Your task to perform on an android device: open app "Chime – Mobile Banking" (install if not already installed) and enter user name: "bullfrog@inbox.com" and password: "breaker" Image 0: 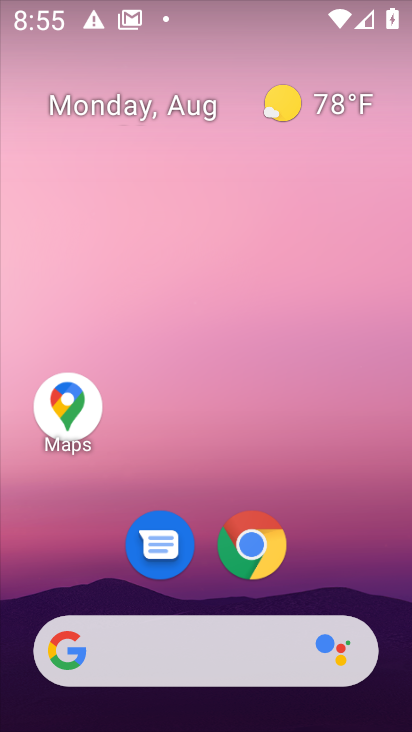
Step 0: press home button
Your task to perform on an android device: open app "Chime – Mobile Banking" (install if not already installed) and enter user name: "bullfrog@inbox.com" and password: "breaker" Image 1: 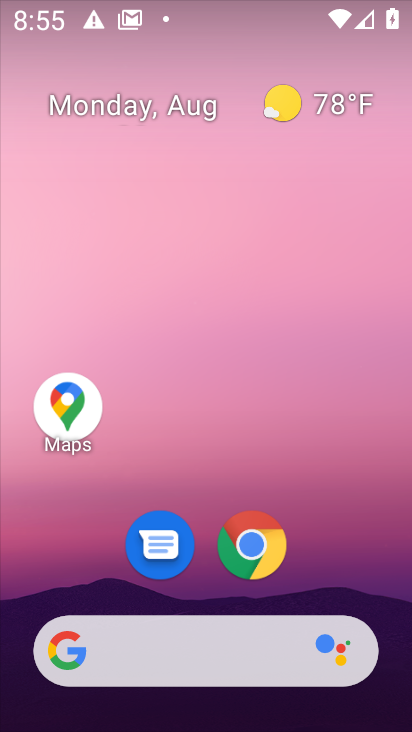
Step 1: drag from (363, 589) to (361, 150)
Your task to perform on an android device: open app "Chime – Mobile Banking" (install if not already installed) and enter user name: "bullfrog@inbox.com" and password: "breaker" Image 2: 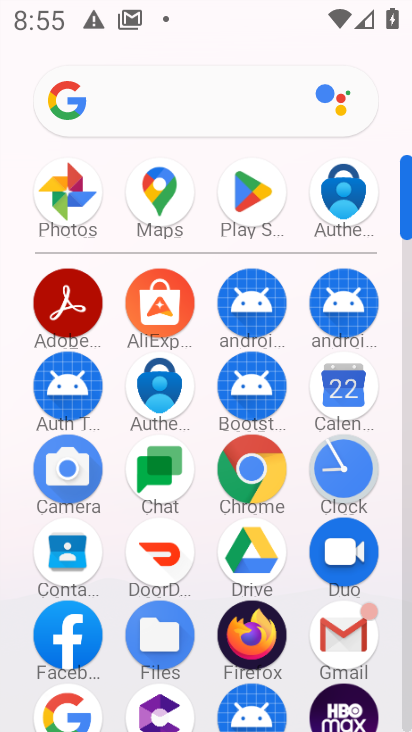
Step 2: click (240, 196)
Your task to perform on an android device: open app "Chime – Mobile Banking" (install if not already installed) and enter user name: "bullfrog@inbox.com" and password: "breaker" Image 3: 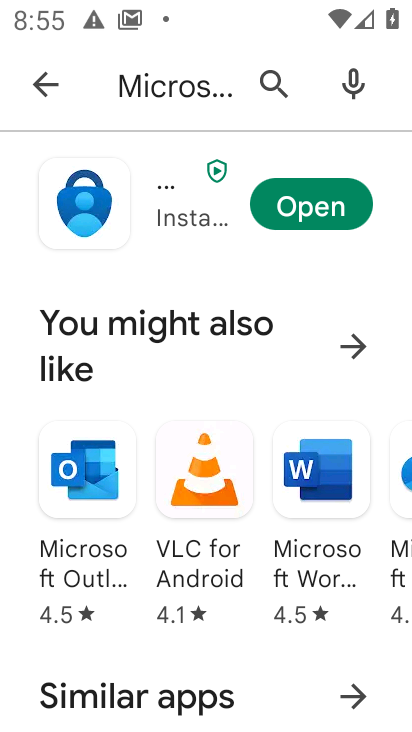
Step 3: press back button
Your task to perform on an android device: open app "Chime – Mobile Banking" (install if not already installed) and enter user name: "bullfrog@inbox.com" and password: "breaker" Image 4: 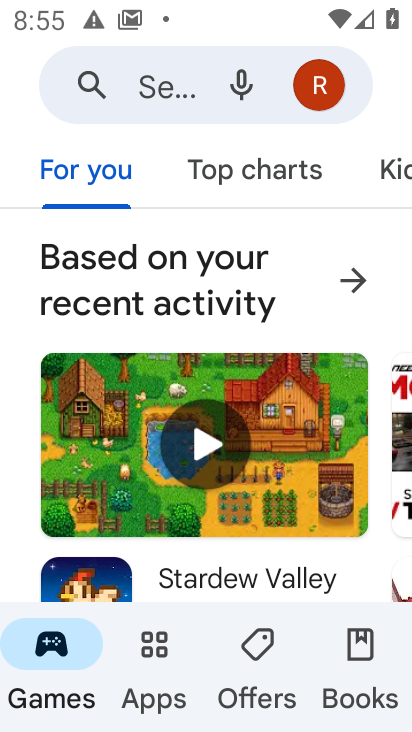
Step 4: click (154, 82)
Your task to perform on an android device: open app "Chime – Mobile Banking" (install if not already installed) and enter user name: "bullfrog@inbox.com" and password: "breaker" Image 5: 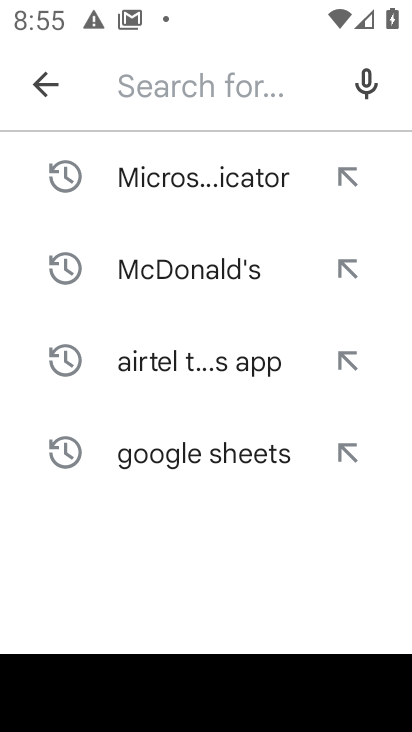
Step 5: type "Chime – Mobile Banking"
Your task to perform on an android device: open app "Chime – Mobile Banking" (install if not already installed) and enter user name: "bullfrog@inbox.com" and password: "breaker" Image 6: 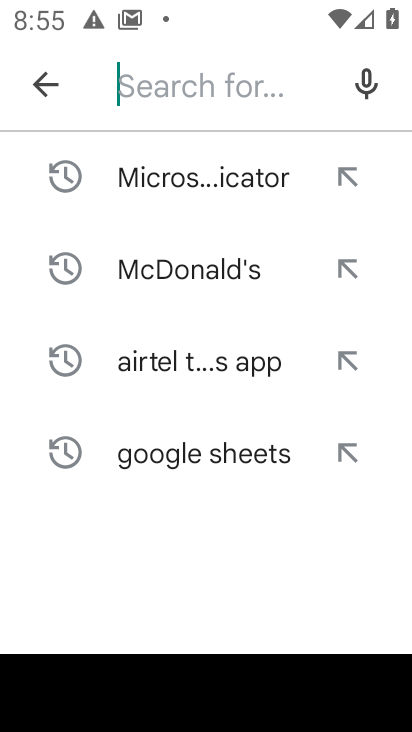
Step 6: press enter
Your task to perform on an android device: open app "Chime – Mobile Banking" (install if not already installed) and enter user name: "bullfrog@inbox.com" and password: "breaker" Image 7: 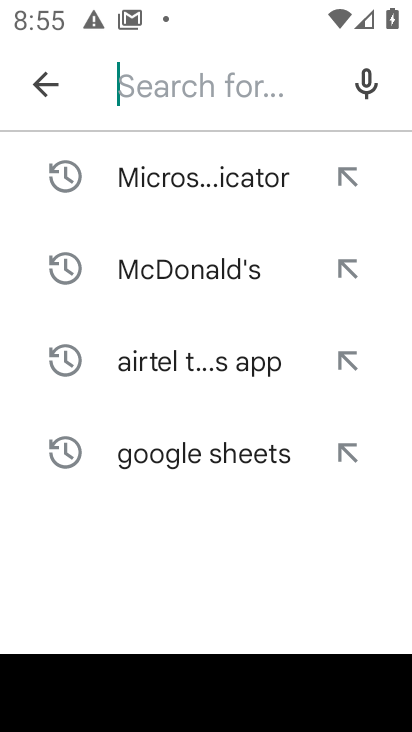
Step 7: press enter
Your task to perform on an android device: open app "Chime – Mobile Banking" (install if not already installed) and enter user name: "bullfrog@inbox.com" and password: "breaker" Image 8: 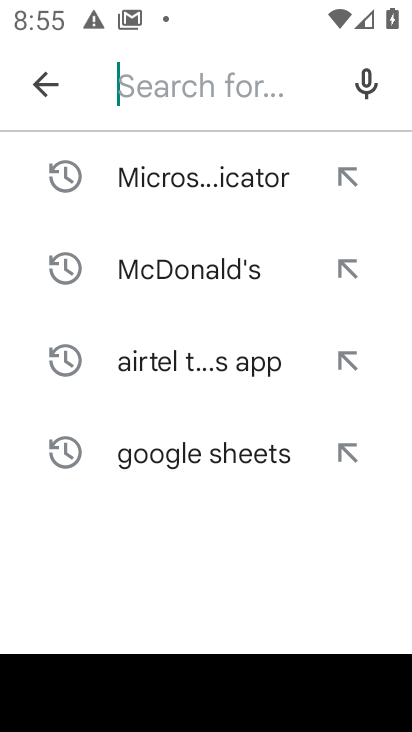
Step 8: type "Chime – Mobile Banking"
Your task to perform on an android device: open app "Chime – Mobile Banking" (install if not already installed) and enter user name: "bullfrog@inbox.com" and password: "breaker" Image 9: 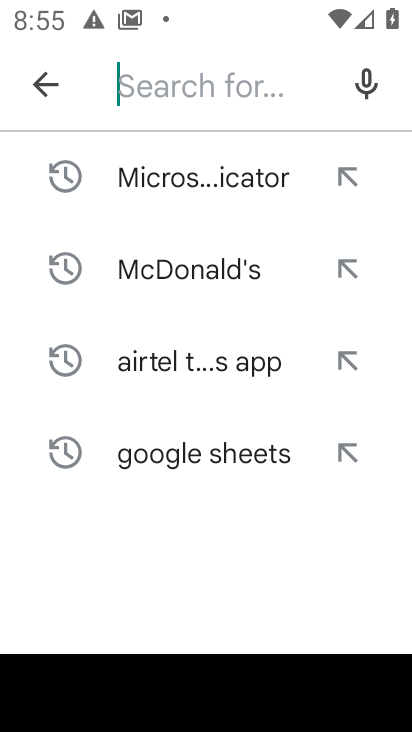
Step 9: task complete